Your task to perform on an android device: star an email in the gmail app Image 0: 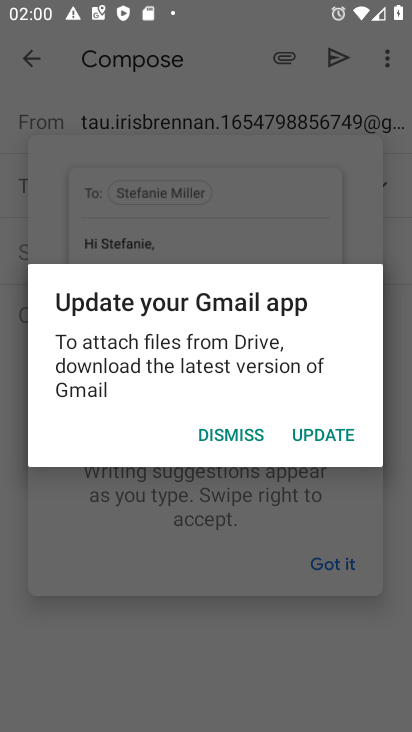
Step 0: press home button
Your task to perform on an android device: star an email in the gmail app Image 1: 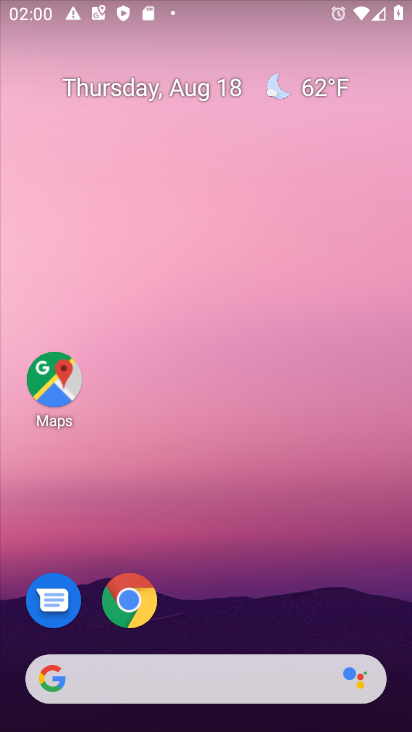
Step 1: drag from (266, 610) to (353, 96)
Your task to perform on an android device: star an email in the gmail app Image 2: 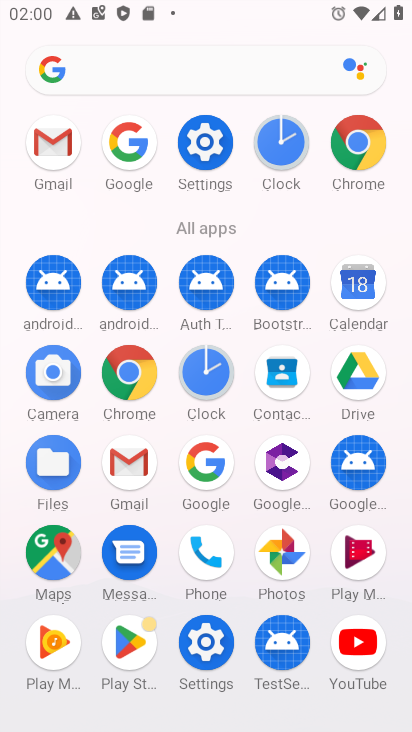
Step 2: click (44, 141)
Your task to perform on an android device: star an email in the gmail app Image 3: 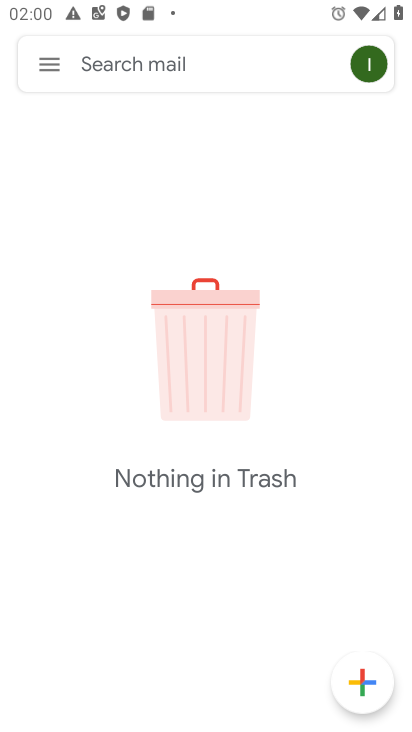
Step 3: click (44, 60)
Your task to perform on an android device: star an email in the gmail app Image 4: 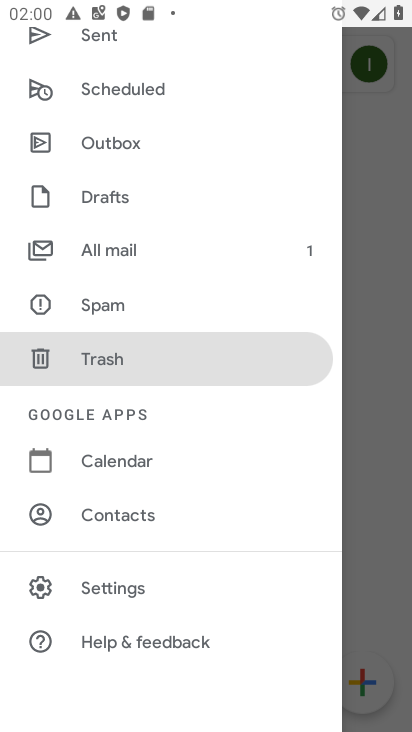
Step 4: click (115, 252)
Your task to perform on an android device: star an email in the gmail app Image 5: 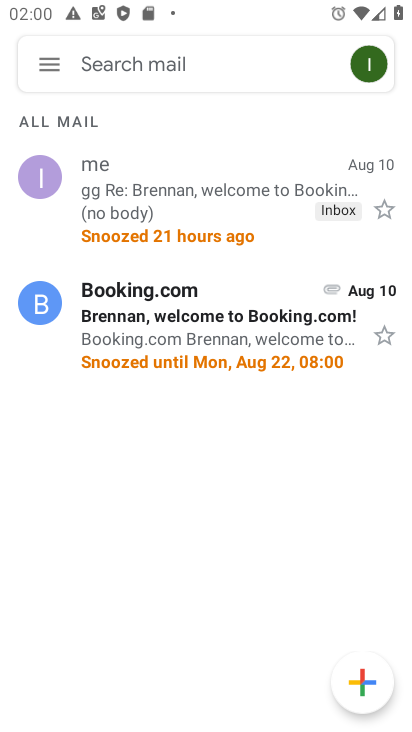
Step 5: click (386, 210)
Your task to perform on an android device: star an email in the gmail app Image 6: 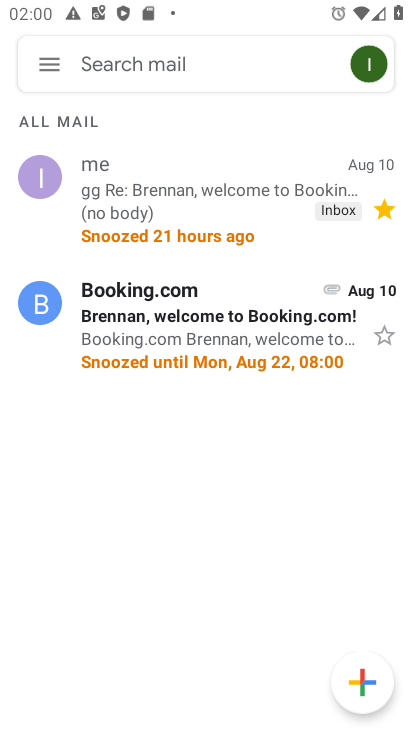
Step 6: task complete